Your task to perform on an android device: read, delete, or share a saved page in the chrome app Image 0: 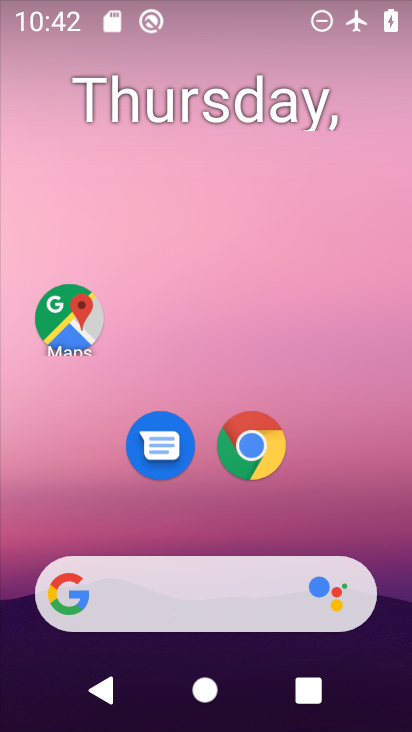
Step 0: click (265, 453)
Your task to perform on an android device: read, delete, or share a saved page in the chrome app Image 1: 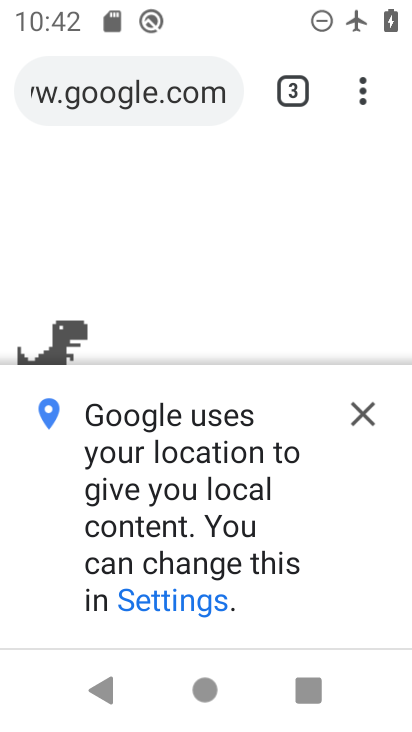
Step 1: click (367, 92)
Your task to perform on an android device: read, delete, or share a saved page in the chrome app Image 2: 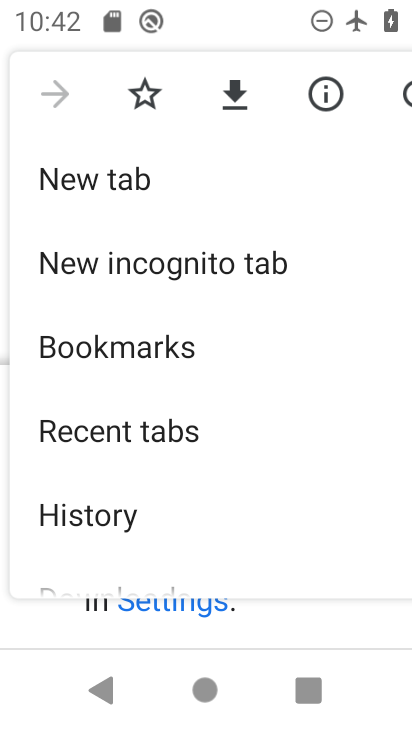
Step 2: drag from (137, 483) to (122, 281)
Your task to perform on an android device: read, delete, or share a saved page in the chrome app Image 3: 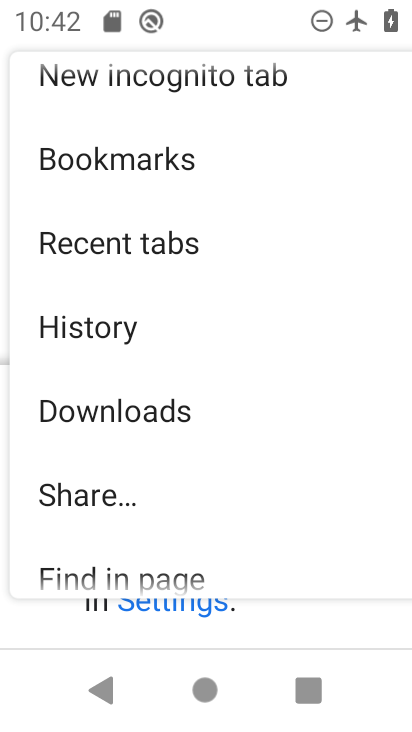
Step 3: click (106, 400)
Your task to perform on an android device: read, delete, or share a saved page in the chrome app Image 4: 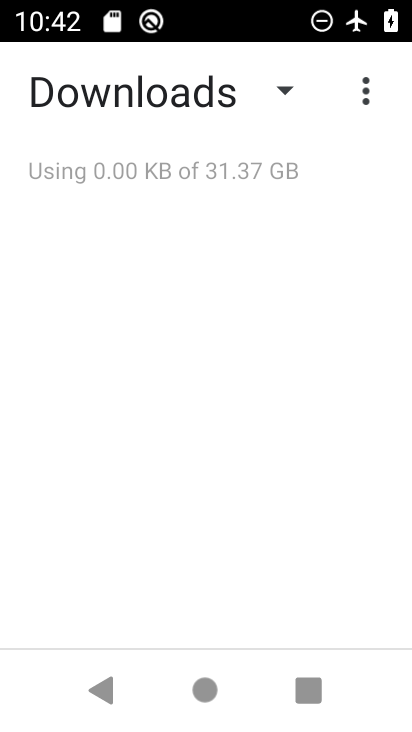
Step 4: task complete